Your task to perform on an android device: Open ESPN.com Image 0: 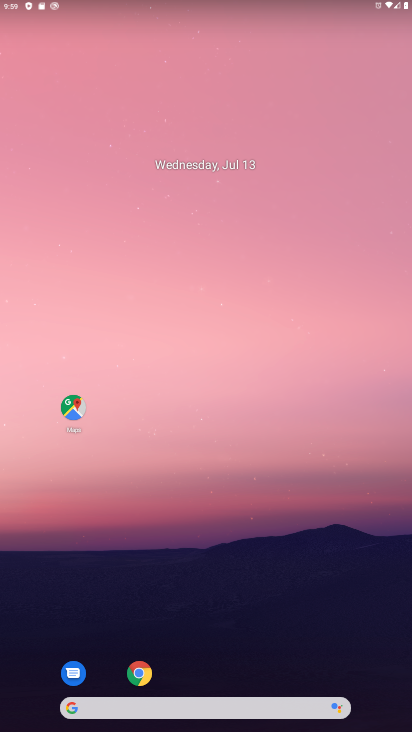
Step 0: click (142, 675)
Your task to perform on an android device: Open ESPN.com Image 1: 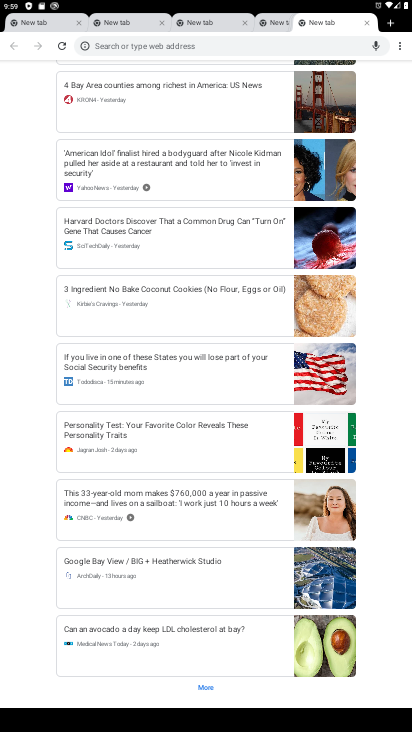
Step 1: click (368, 21)
Your task to perform on an android device: Open ESPN.com Image 2: 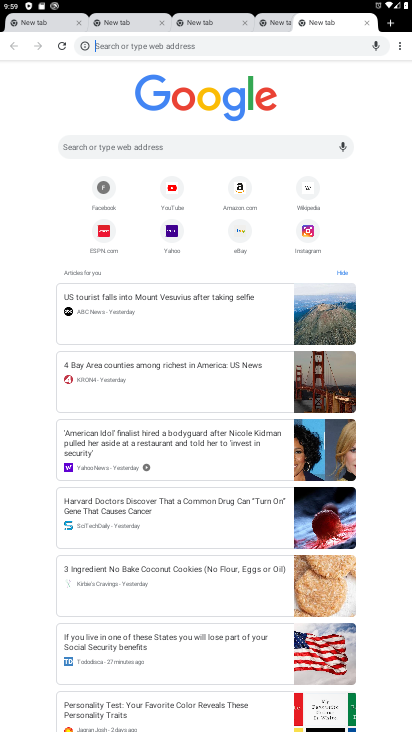
Step 2: click (103, 224)
Your task to perform on an android device: Open ESPN.com Image 3: 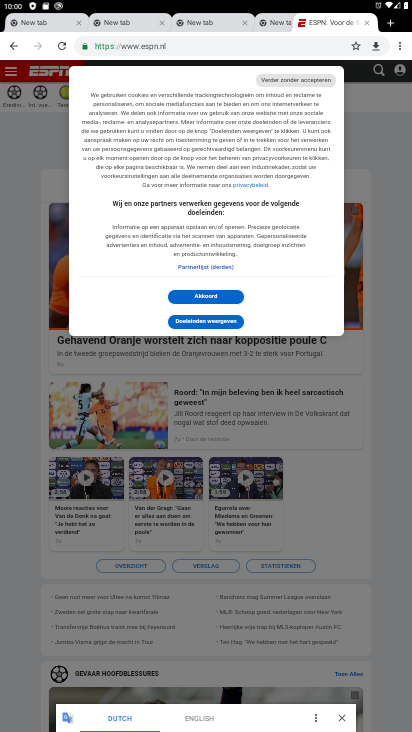
Step 3: task complete